Your task to perform on an android device: Open display settings Image 0: 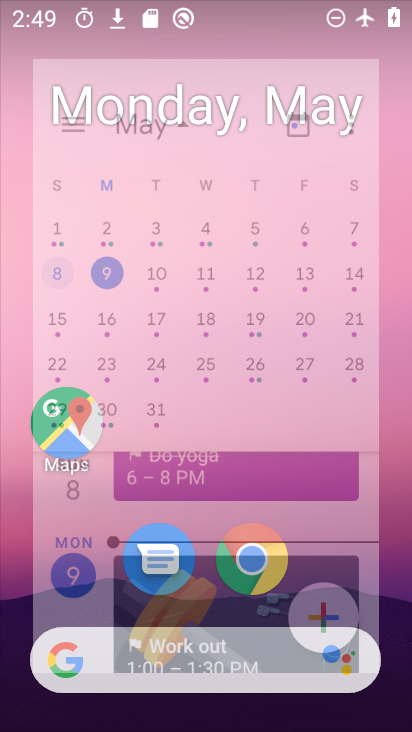
Step 0: click (410, 608)
Your task to perform on an android device: Open display settings Image 1: 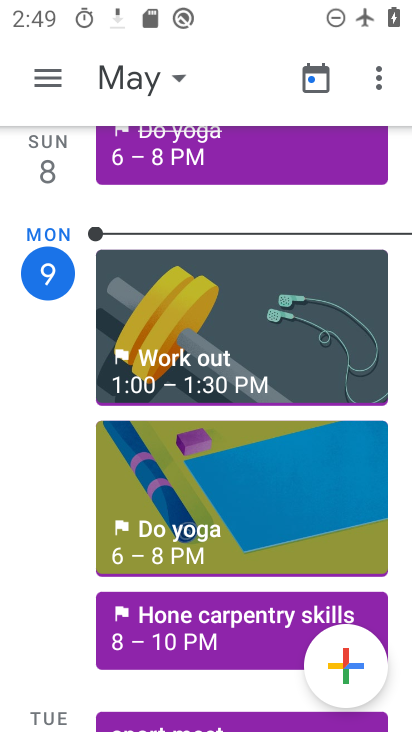
Step 1: drag from (201, 556) to (353, 140)
Your task to perform on an android device: Open display settings Image 2: 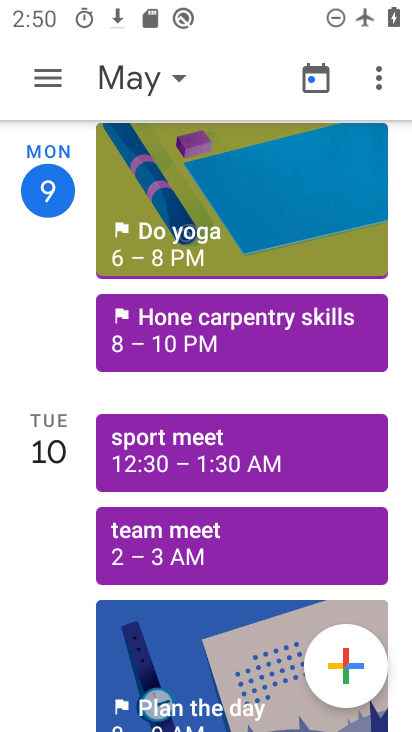
Step 2: drag from (176, 656) to (280, 226)
Your task to perform on an android device: Open display settings Image 3: 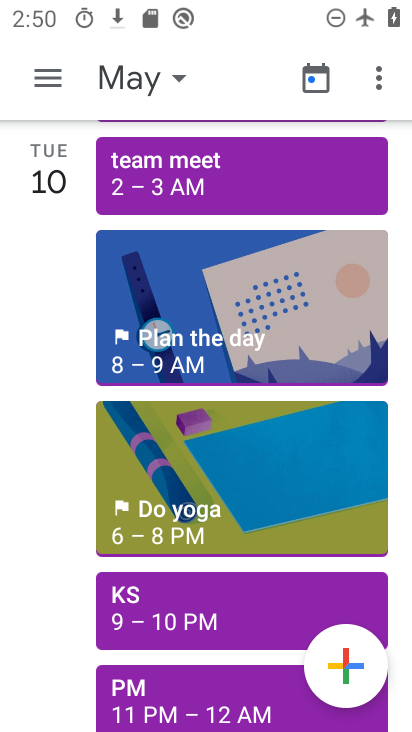
Step 3: press home button
Your task to perform on an android device: Open display settings Image 4: 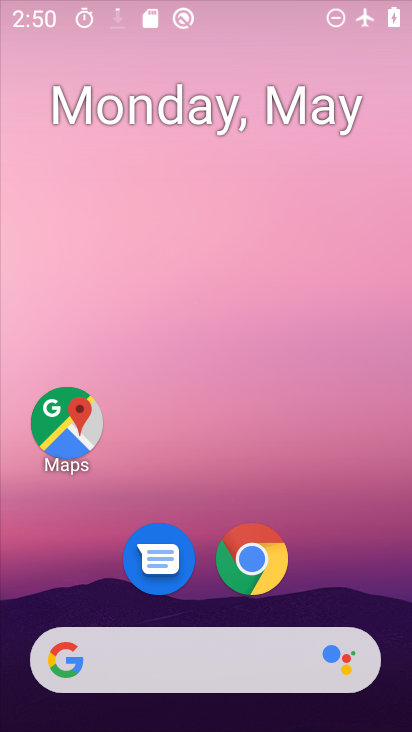
Step 4: drag from (196, 654) to (276, 74)
Your task to perform on an android device: Open display settings Image 5: 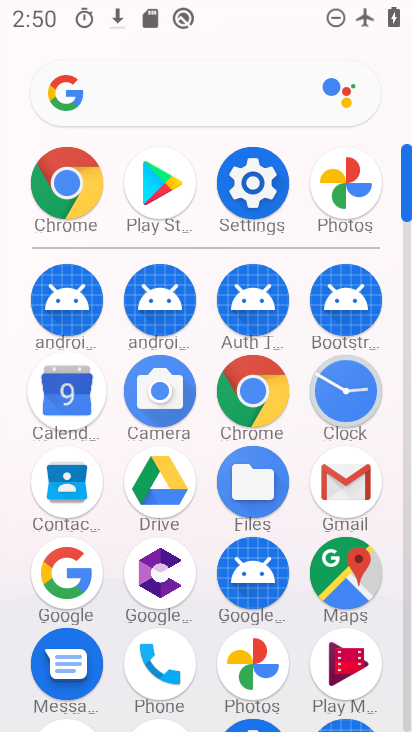
Step 5: click (275, 186)
Your task to perform on an android device: Open display settings Image 6: 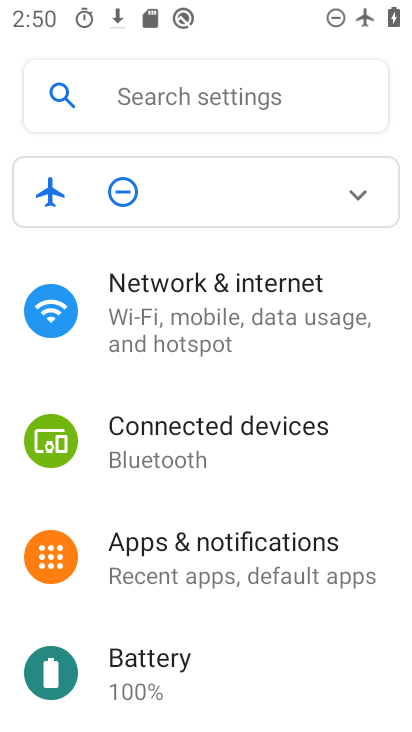
Step 6: drag from (200, 597) to (237, 180)
Your task to perform on an android device: Open display settings Image 7: 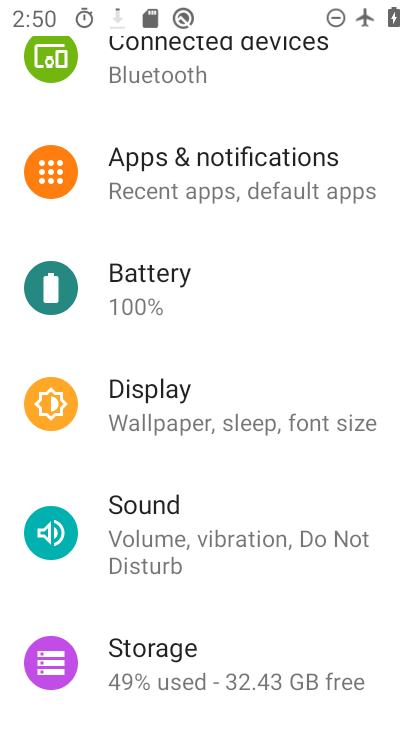
Step 7: drag from (218, 610) to (266, 220)
Your task to perform on an android device: Open display settings Image 8: 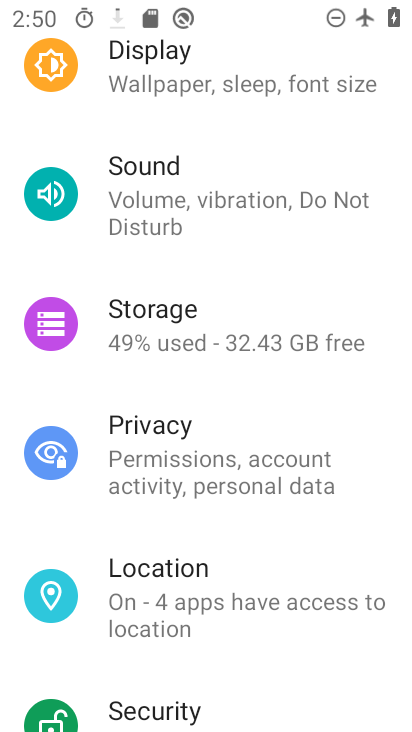
Step 8: drag from (244, 535) to (272, 170)
Your task to perform on an android device: Open display settings Image 9: 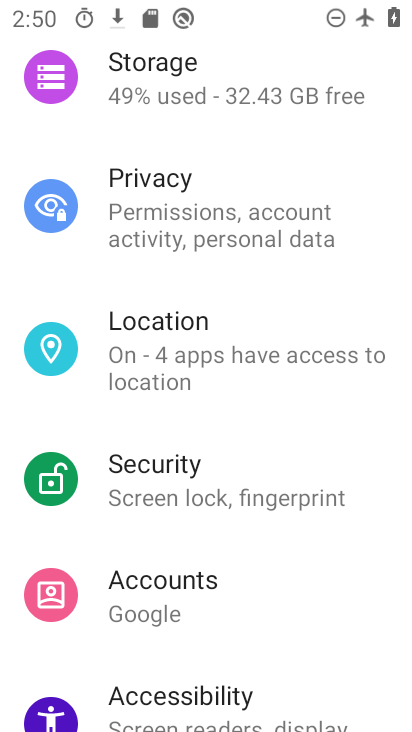
Step 9: drag from (269, 169) to (227, 728)
Your task to perform on an android device: Open display settings Image 10: 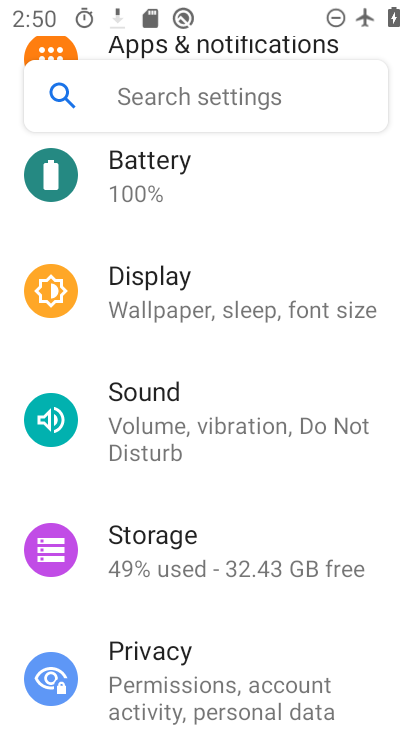
Step 10: drag from (255, 244) to (233, 730)
Your task to perform on an android device: Open display settings Image 11: 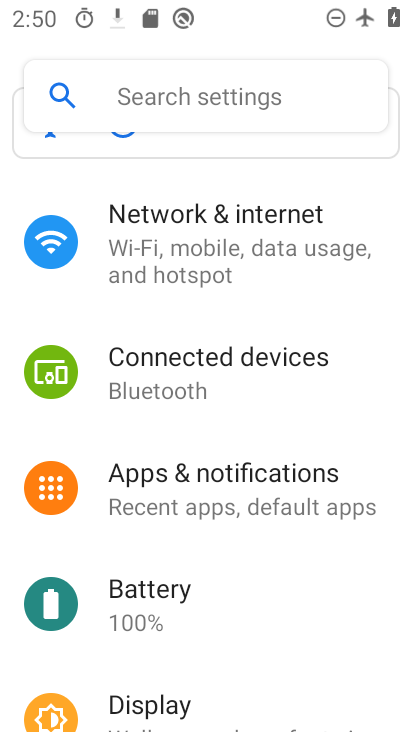
Step 11: drag from (192, 652) to (257, 379)
Your task to perform on an android device: Open display settings Image 12: 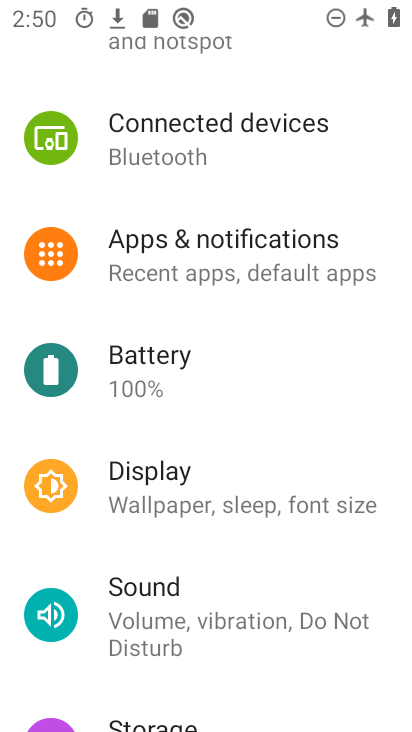
Step 12: click (185, 485)
Your task to perform on an android device: Open display settings Image 13: 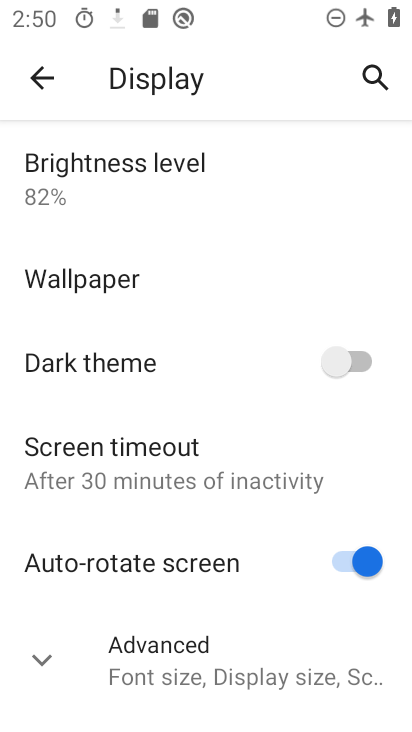
Step 13: task complete